Your task to perform on an android device: turn on javascript in the chrome app Image 0: 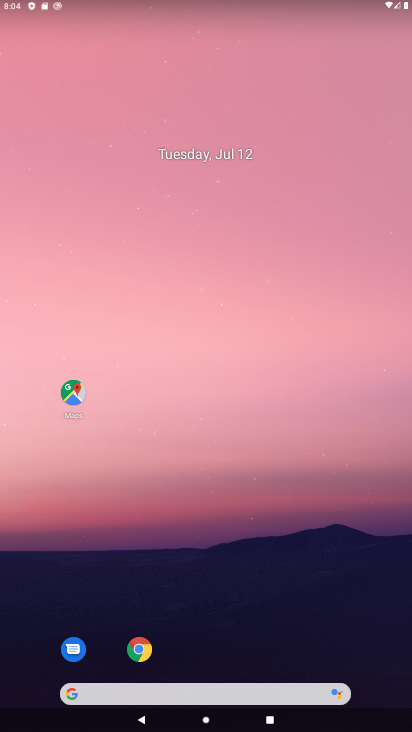
Step 0: click (140, 651)
Your task to perform on an android device: turn on javascript in the chrome app Image 1: 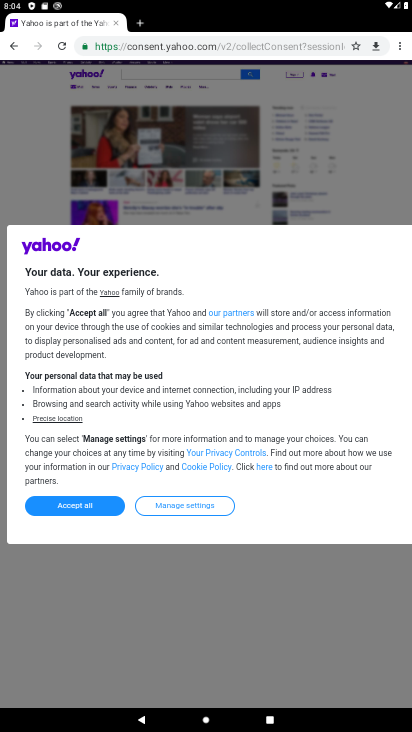
Step 1: click (397, 42)
Your task to perform on an android device: turn on javascript in the chrome app Image 2: 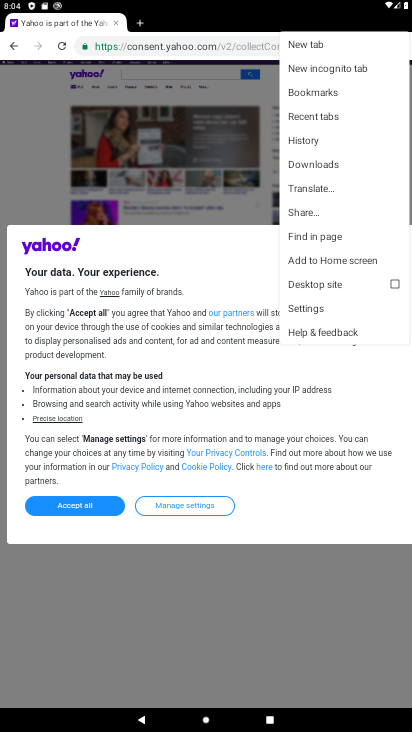
Step 2: click (318, 310)
Your task to perform on an android device: turn on javascript in the chrome app Image 3: 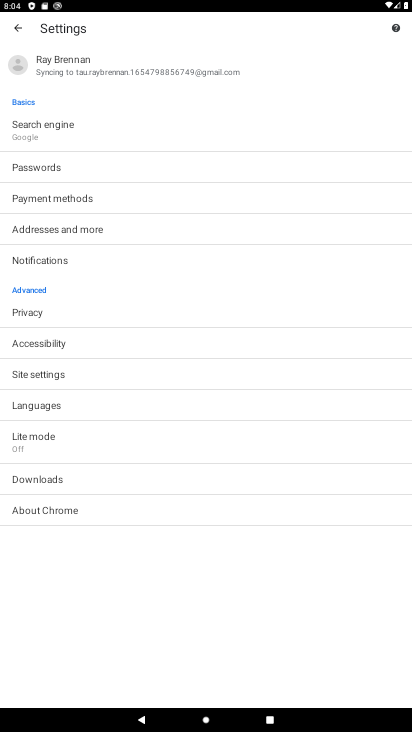
Step 3: click (34, 376)
Your task to perform on an android device: turn on javascript in the chrome app Image 4: 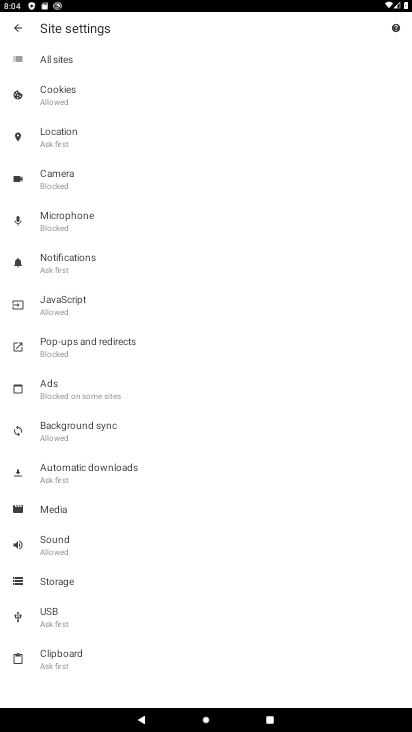
Step 4: click (66, 295)
Your task to perform on an android device: turn on javascript in the chrome app Image 5: 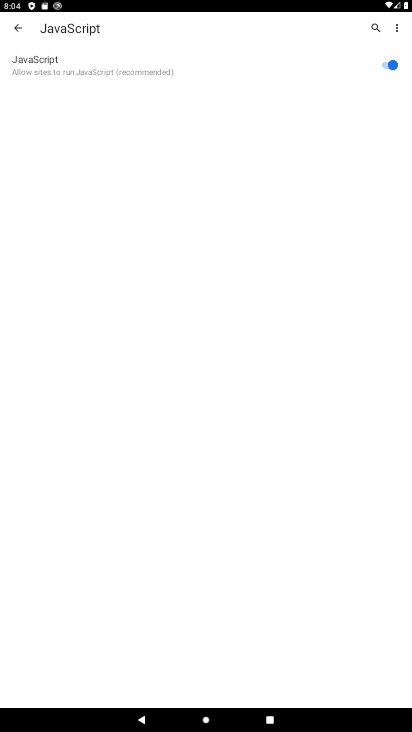
Step 5: task complete